Your task to perform on an android device: See recent photos Image 0: 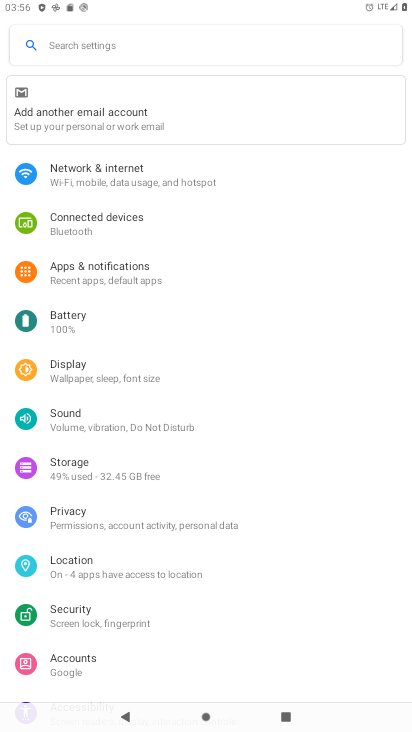
Step 0: press home button
Your task to perform on an android device: See recent photos Image 1: 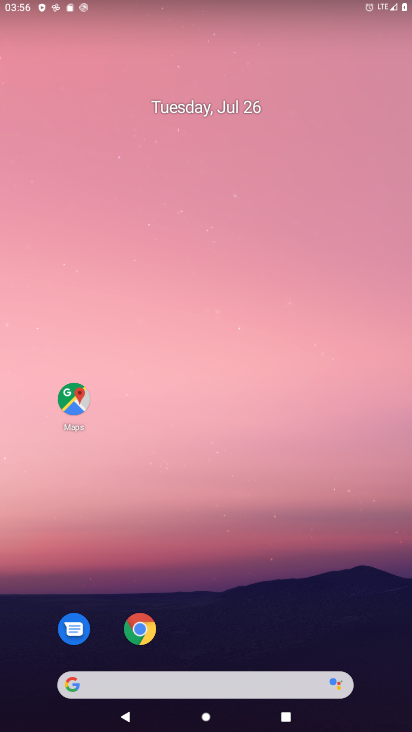
Step 1: drag from (258, 643) to (273, 136)
Your task to perform on an android device: See recent photos Image 2: 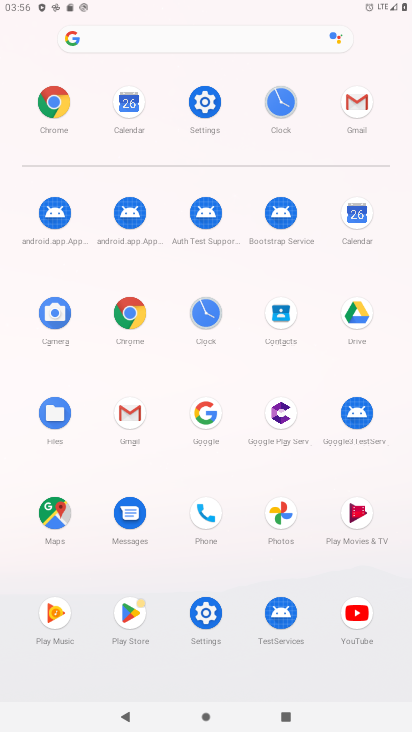
Step 2: click (283, 505)
Your task to perform on an android device: See recent photos Image 3: 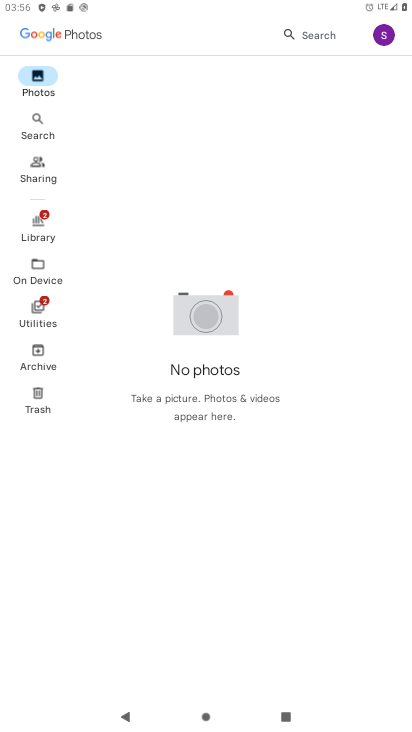
Step 3: click (36, 71)
Your task to perform on an android device: See recent photos Image 4: 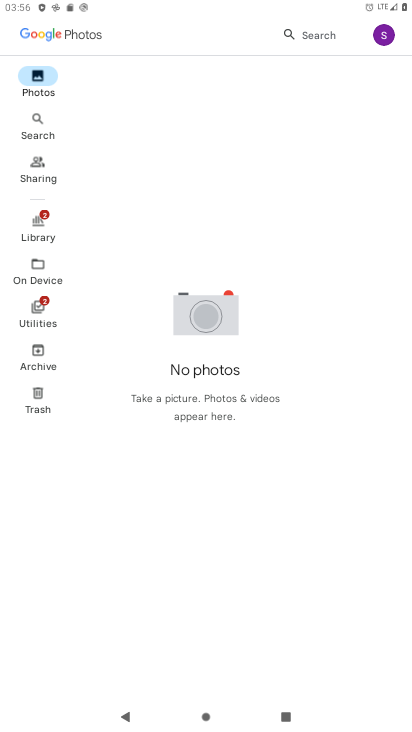
Step 4: task complete